Your task to perform on an android device: Search for the best books of all time on Goodreads Image 0: 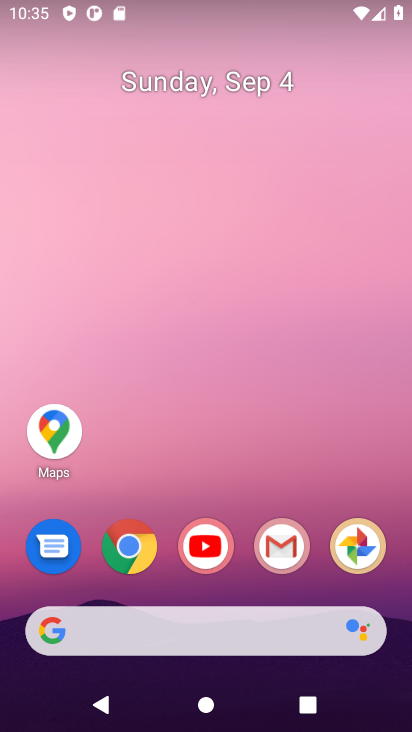
Step 0: click (127, 546)
Your task to perform on an android device: Search for the best books of all time on Goodreads Image 1: 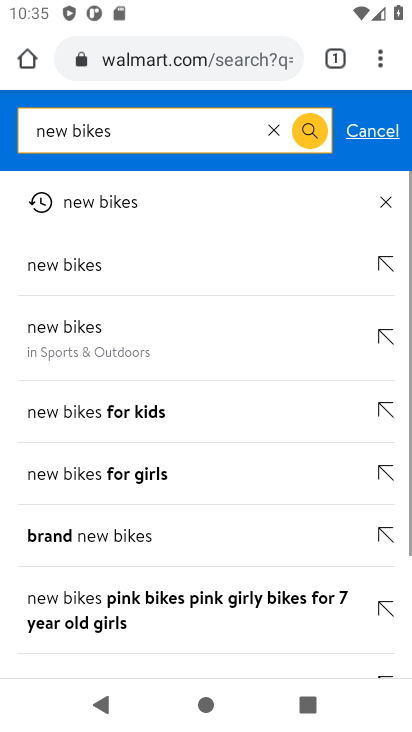
Step 1: click (191, 55)
Your task to perform on an android device: Search for the best books of all time on Goodreads Image 2: 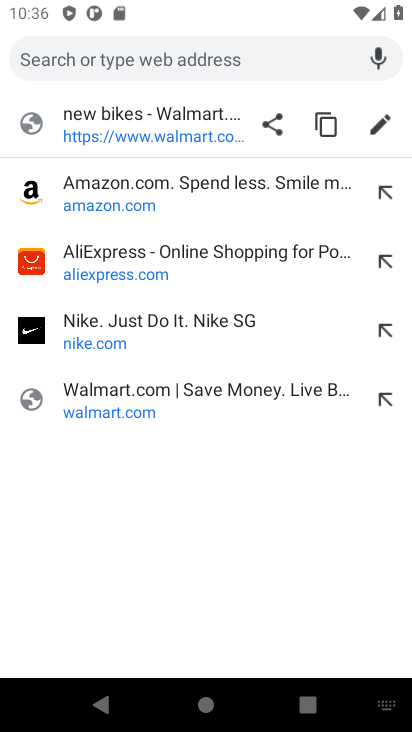
Step 2: type "Goodreads"
Your task to perform on an android device: Search for the best books of all time on Goodreads Image 3: 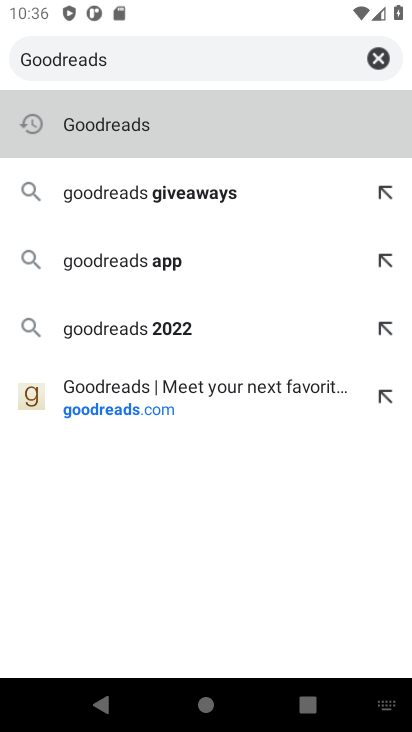
Step 3: click (122, 129)
Your task to perform on an android device: Search for the best books of all time on Goodreads Image 4: 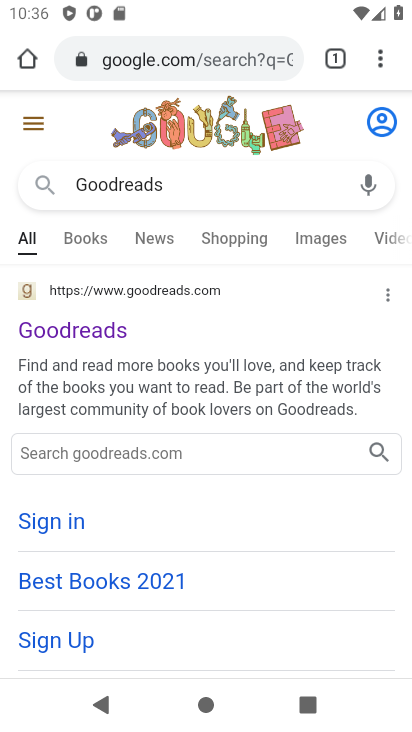
Step 4: click (63, 333)
Your task to perform on an android device: Search for the best books of all time on Goodreads Image 5: 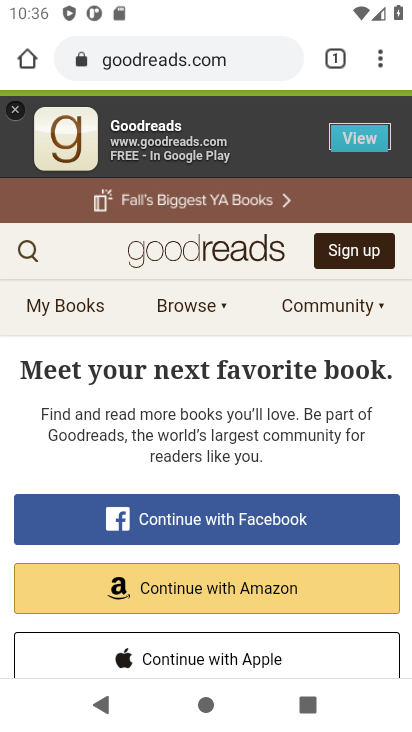
Step 5: click (33, 250)
Your task to perform on an android device: Search for the best books of all time on Goodreads Image 6: 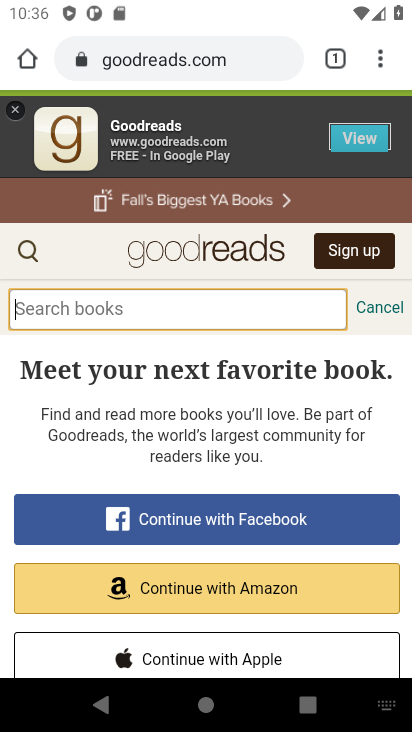
Step 6: click (106, 300)
Your task to perform on an android device: Search for the best books of all time on Goodreads Image 7: 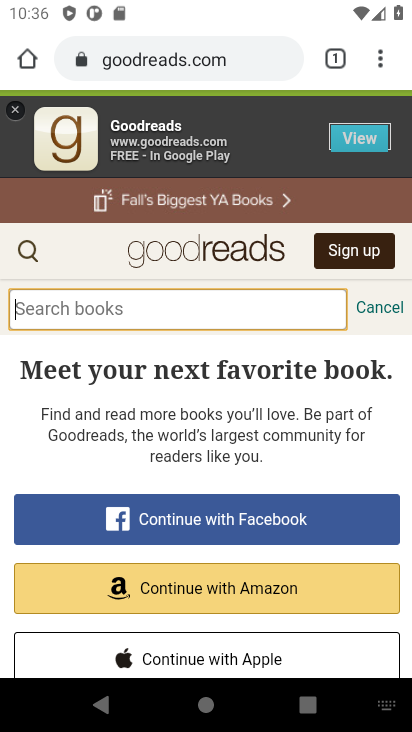
Step 7: type " best books of all time"
Your task to perform on an android device: Search for the best books of all time on Goodreads Image 8: 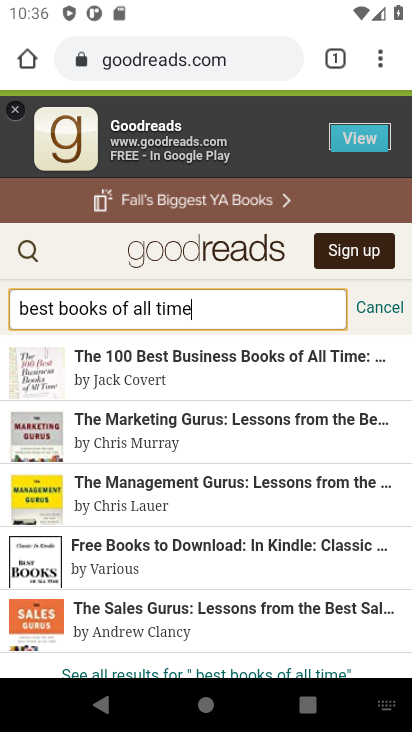
Step 8: task complete